Your task to perform on an android device: choose inbox layout in the gmail app Image 0: 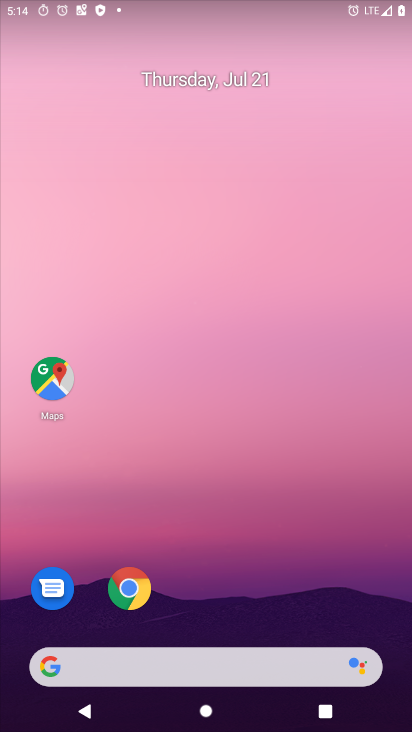
Step 0: drag from (229, 611) to (287, 116)
Your task to perform on an android device: choose inbox layout in the gmail app Image 1: 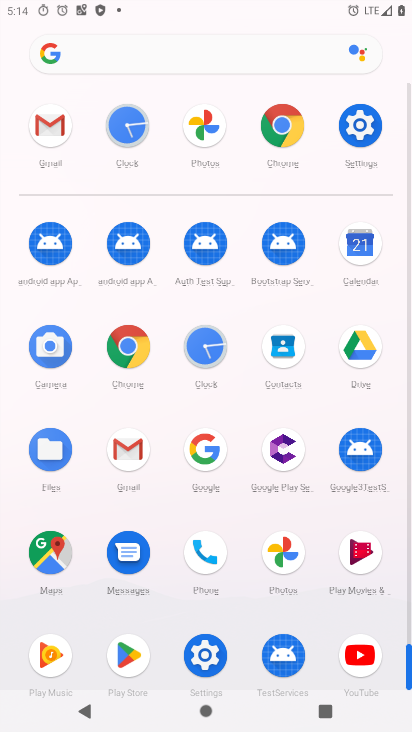
Step 1: click (126, 442)
Your task to perform on an android device: choose inbox layout in the gmail app Image 2: 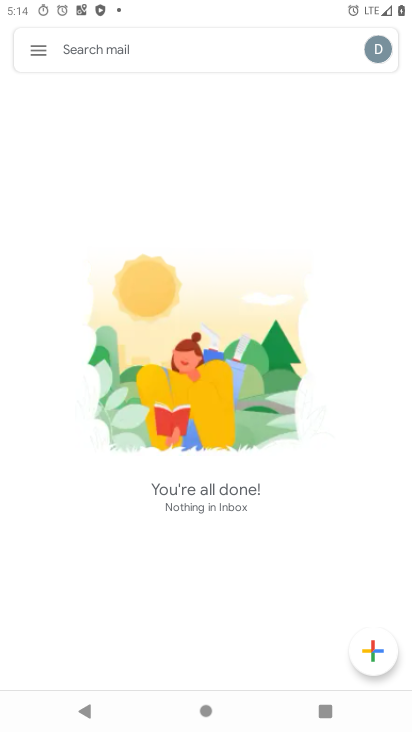
Step 2: click (41, 44)
Your task to perform on an android device: choose inbox layout in the gmail app Image 3: 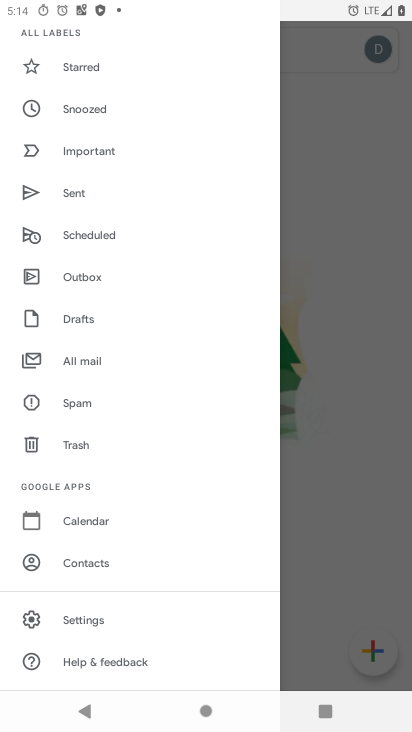
Step 3: click (84, 613)
Your task to perform on an android device: choose inbox layout in the gmail app Image 4: 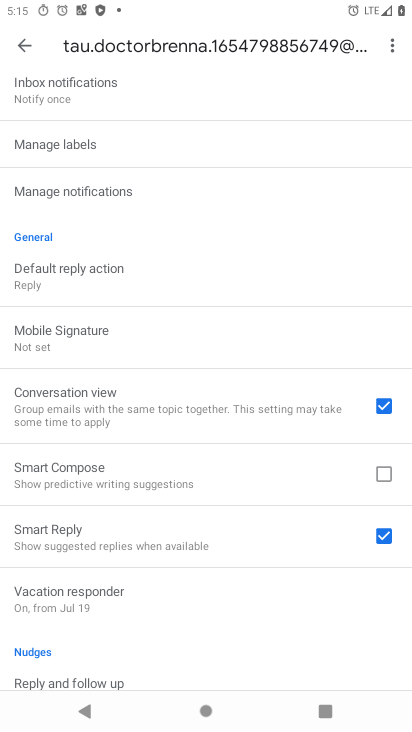
Step 4: drag from (199, 505) to (223, 291)
Your task to perform on an android device: choose inbox layout in the gmail app Image 5: 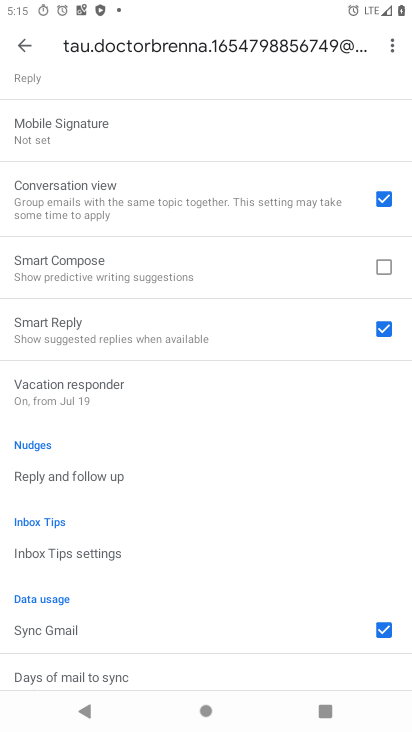
Step 5: drag from (215, 163) to (167, 596)
Your task to perform on an android device: choose inbox layout in the gmail app Image 6: 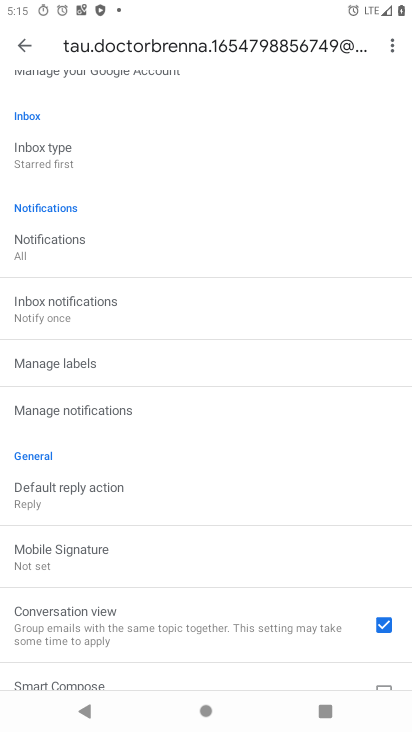
Step 6: click (56, 155)
Your task to perform on an android device: choose inbox layout in the gmail app Image 7: 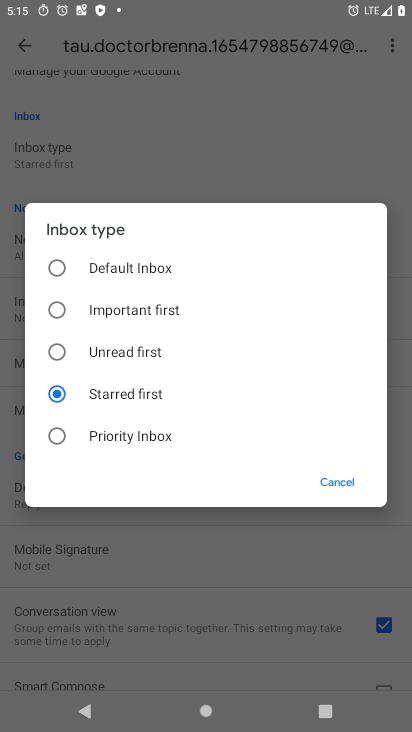
Step 7: click (157, 428)
Your task to perform on an android device: choose inbox layout in the gmail app Image 8: 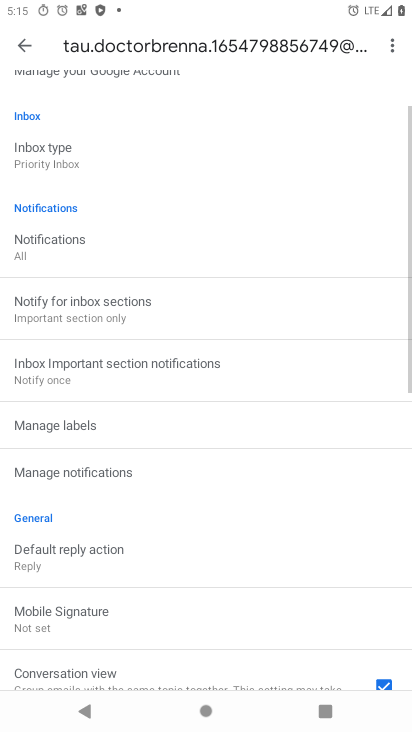
Step 8: task complete